Your task to perform on an android device: Go to Android settings Image 0: 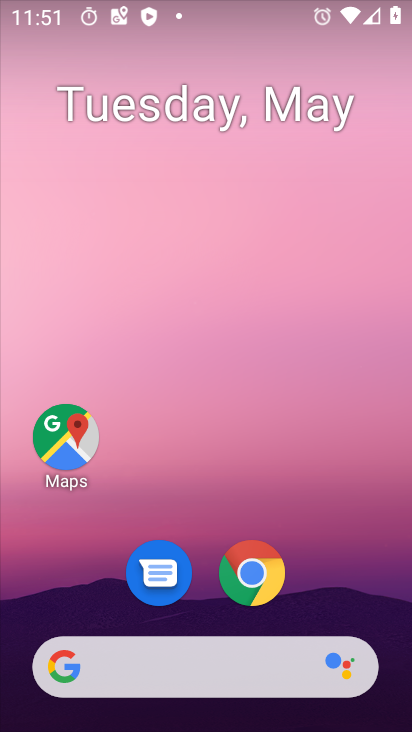
Step 0: drag from (287, 701) to (352, 211)
Your task to perform on an android device: Go to Android settings Image 1: 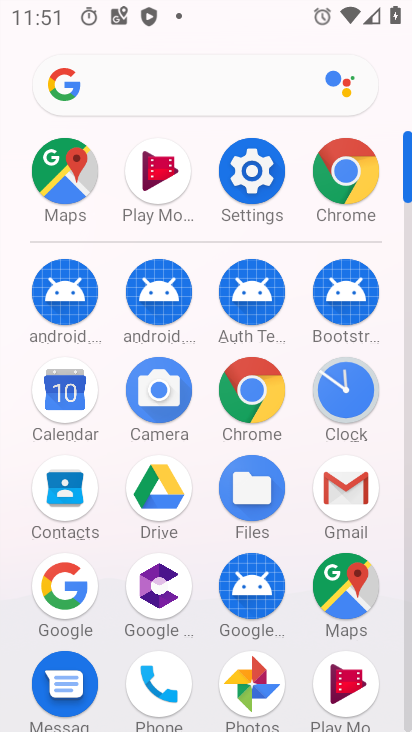
Step 1: click (239, 194)
Your task to perform on an android device: Go to Android settings Image 2: 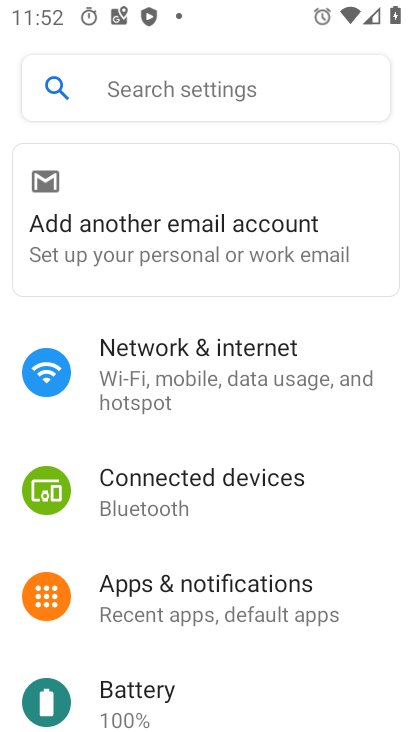
Step 2: click (189, 94)
Your task to perform on an android device: Go to Android settings Image 3: 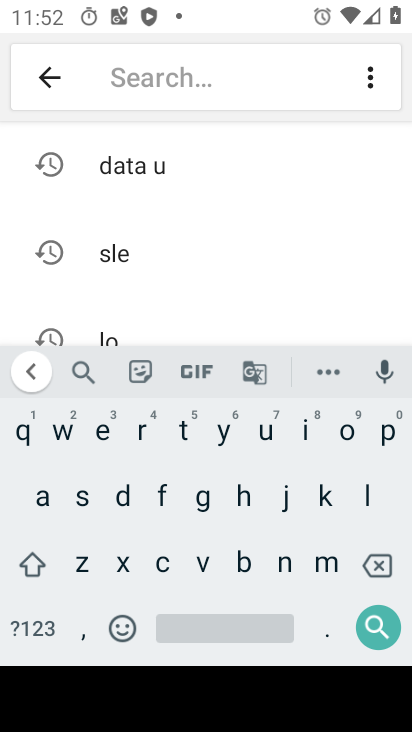
Step 3: click (41, 505)
Your task to perform on an android device: Go to Android settings Image 4: 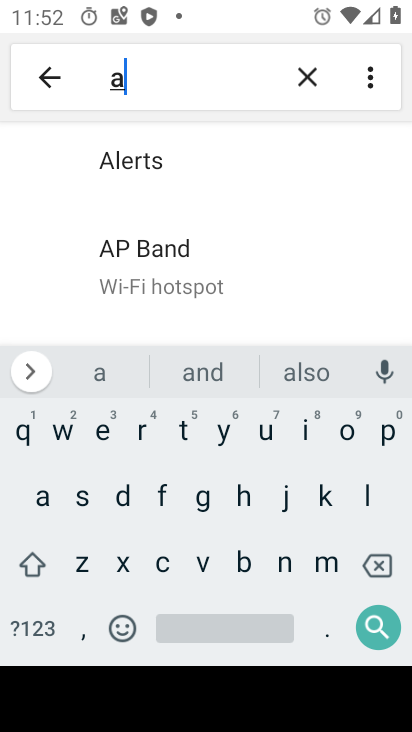
Step 4: click (284, 557)
Your task to perform on an android device: Go to Android settings Image 5: 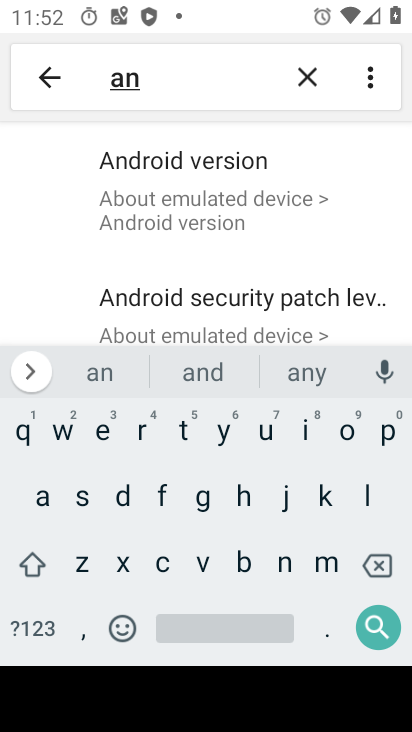
Step 5: click (230, 204)
Your task to perform on an android device: Go to Android settings Image 6: 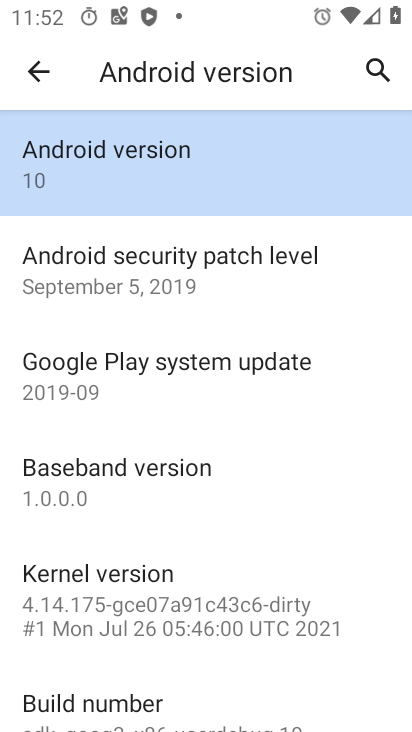
Step 6: task complete